Your task to perform on an android device: Play the last video I watched on Youtube Image 0: 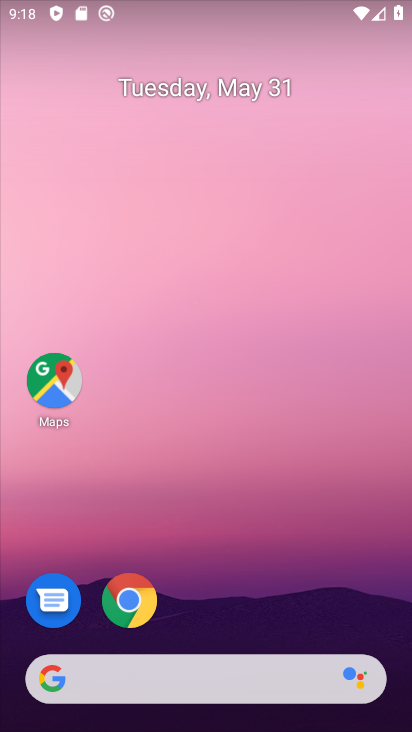
Step 0: drag from (213, 588) to (206, 334)
Your task to perform on an android device: Play the last video I watched on Youtube Image 1: 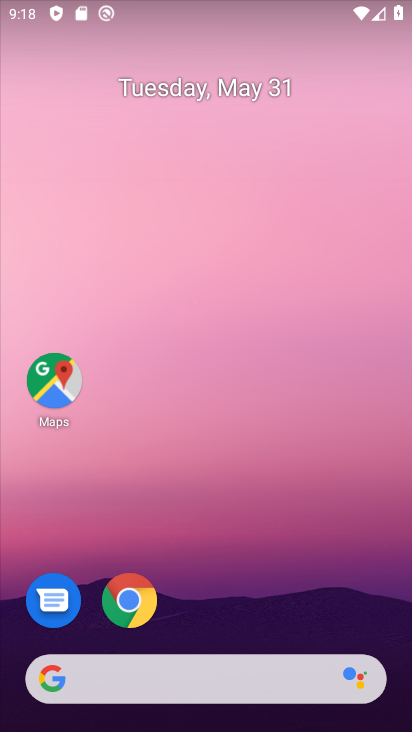
Step 1: drag from (207, 586) to (216, 209)
Your task to perform on an android device: Play the last video I watched on Youtube Image 2: 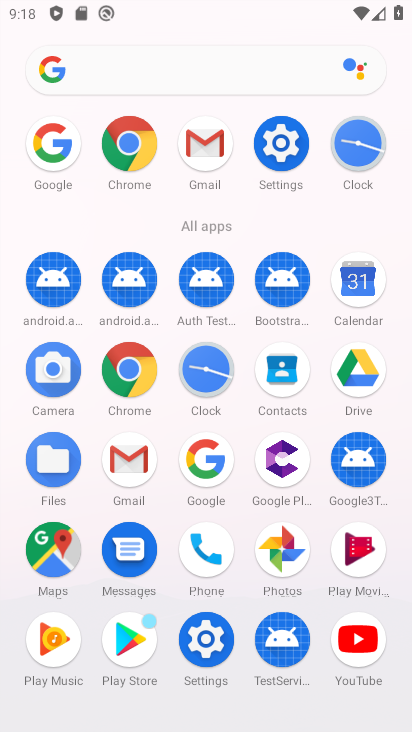
Step 2: click (352, 638)
Your task to perform on an android device: Play the last video I watched on Youtube Image 3: 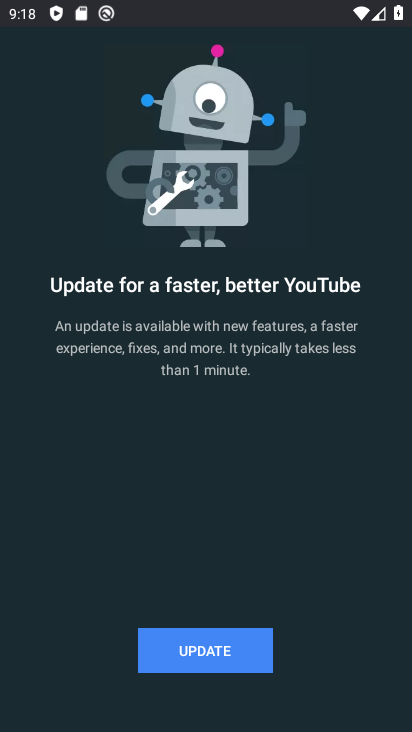
Step 3: click (220, 673)
Your task to perform on an android device: Play the last video I watched on Youtube Image 4: 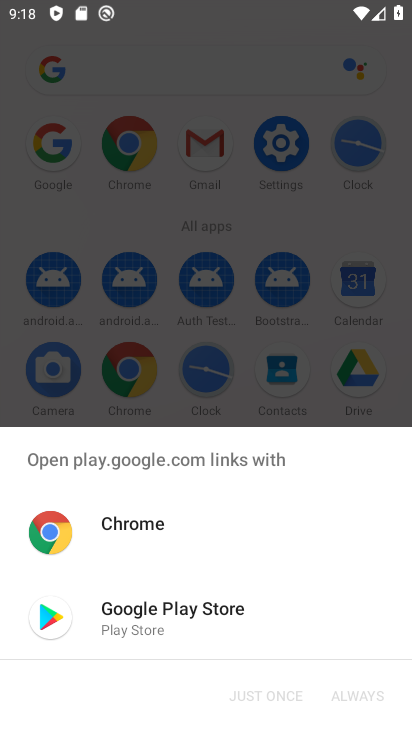
Step 4: click (150, 636)
Your task to perform on an android device: Play the last video I watched on Youtube Image 5: 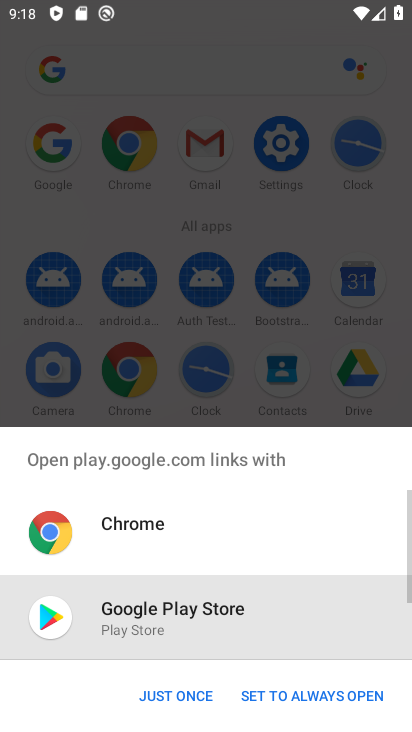
Step 5: click (289, 699)
Your task to perform on an android device: Play the last video I watched on Youtube Image 6: 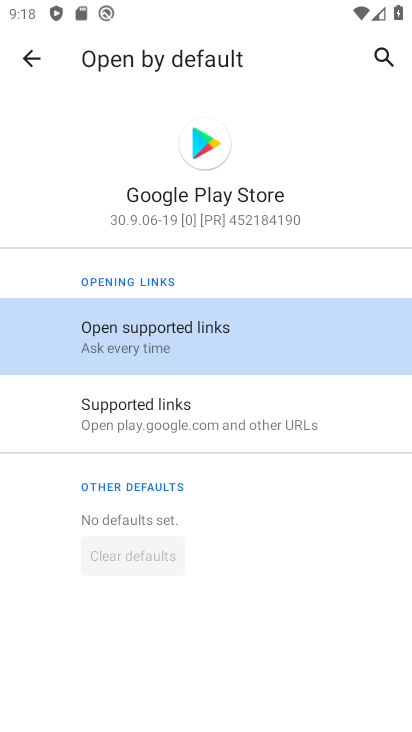
Step 6: click (67, 324)
Your task to perform on an android device: Play the last video I watched on Youtube Image 7: 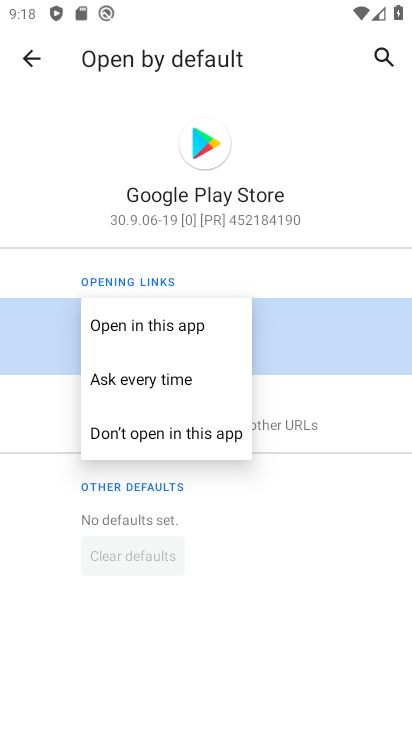
Step 7: click (115, 338)
Your task to perform on an android device: Play the last video I watched on Youtube Image 8: 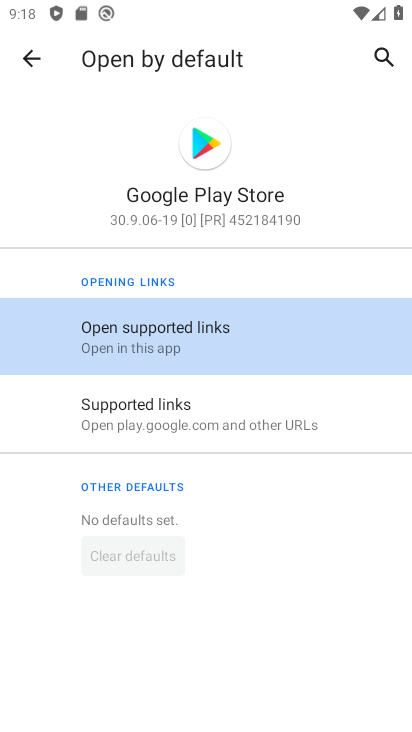
Step 8: click (46, 64)
Your task to perform on an android device: Play the last video I watched on Youtube Image 9: 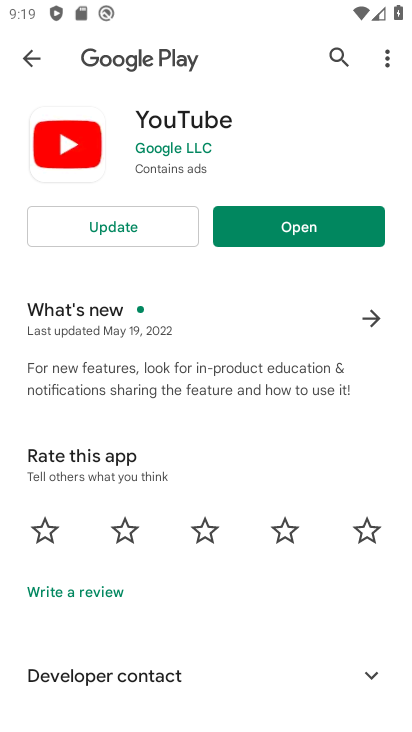
Step 9: click (145, 213)
Your task to perform on an android device: Play the last video I watched on Youtube Image 10: 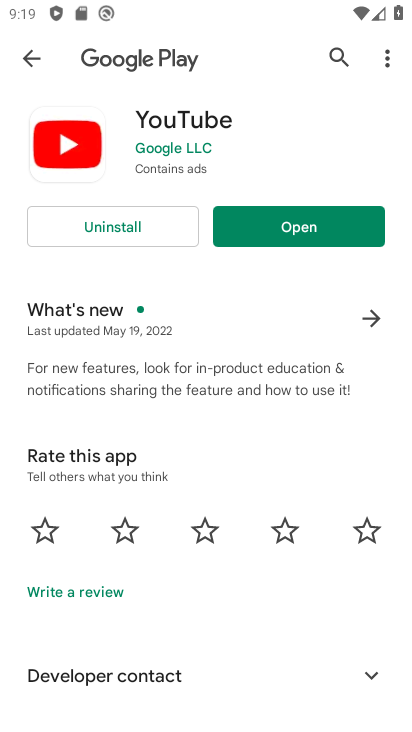
Step 10: click (246, 234)
Your task to perform on an android device: Play the last video I watched on Youtube Image 11: 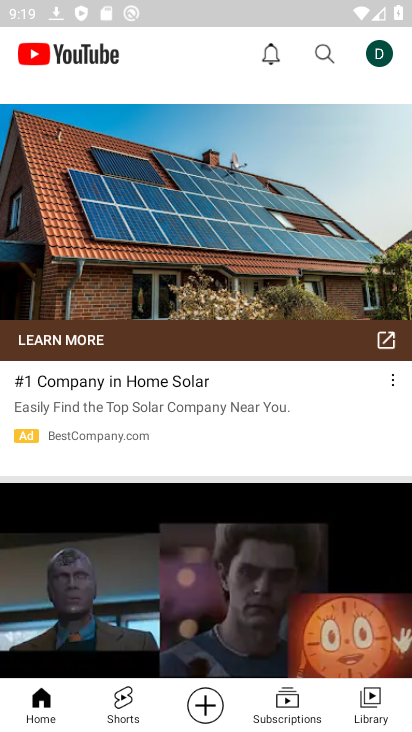
Step 11: drag from (214, 567) to (213, 251)
Your task to perform on an android device: Play the last video I watched on Youtube Image 12: 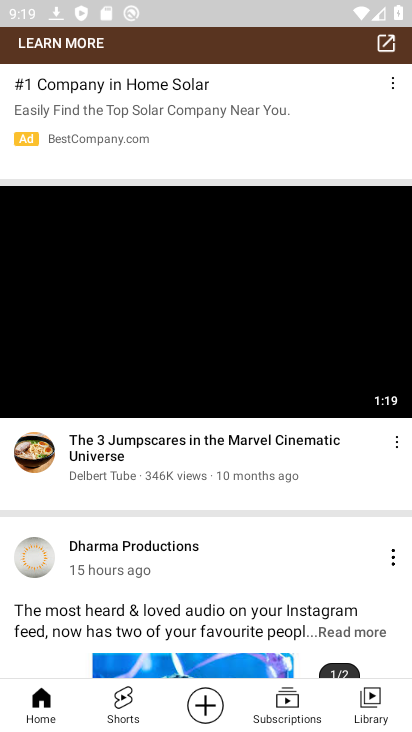
Step 12: drag from (176, 533) to (198, 239)
Your task to perform on an android device: Play the last video I watched on Youtube Image 13: 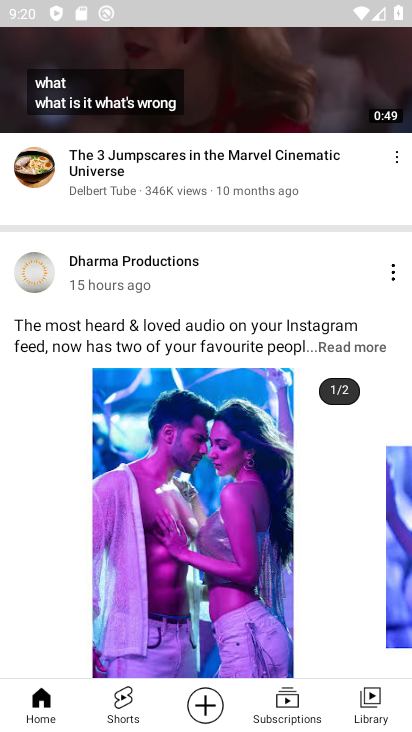
Step 13: press back button
Your task to perform on an android device: Play the last video I watched on Youtube Image 14: 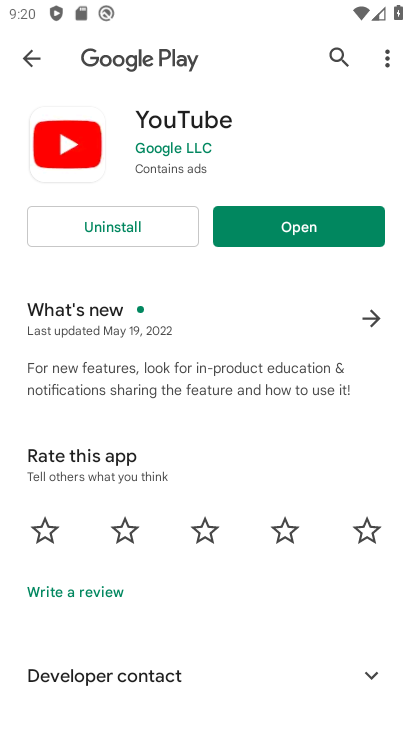
Step 14: click (280, 231)
Your task to perform on an android device: Play the last video I watched on Youtube Image 15: 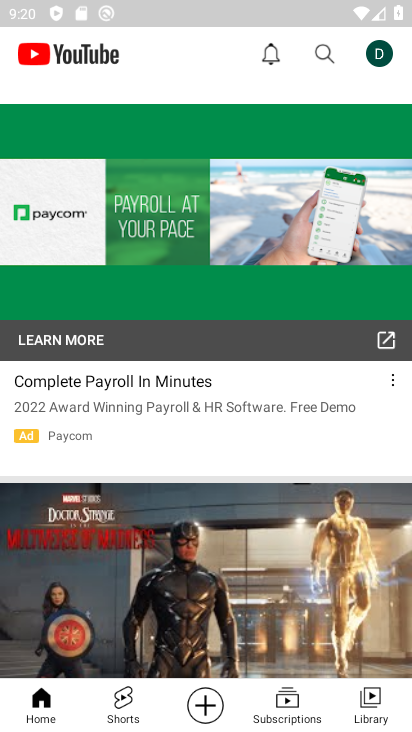
Step 15: task complete